Your task to perform on an android device: turn on bluetooth scan Image 0: 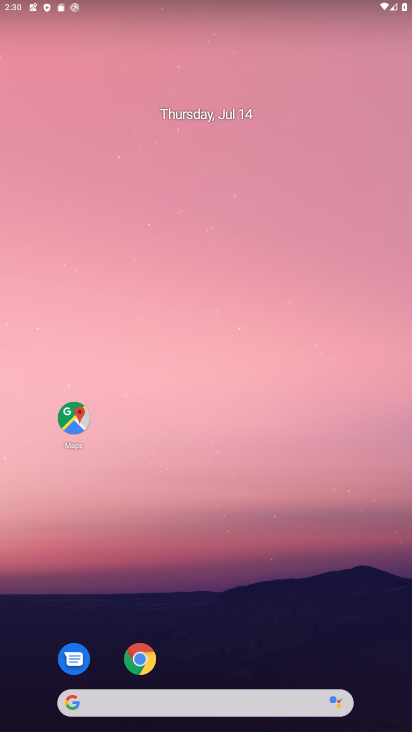
Step 0: drag from (231, 659) to (274, 277)
Your task to perform on an android device: turn on bluetooth scan Image 1: 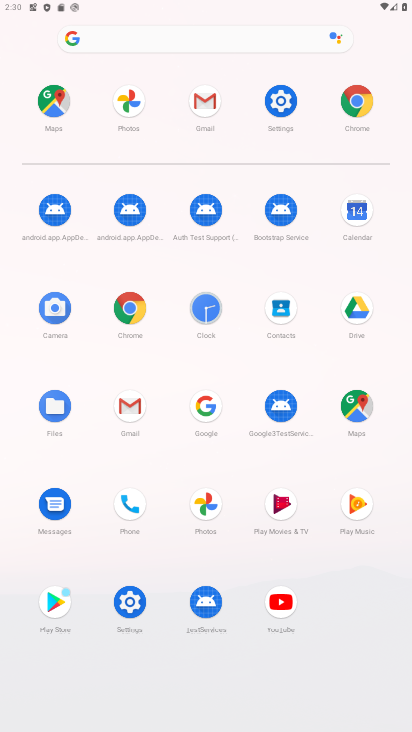
Step 1: click (280, 100)
Your task to perform on an android device: turn on bluetooth scan Image 2: 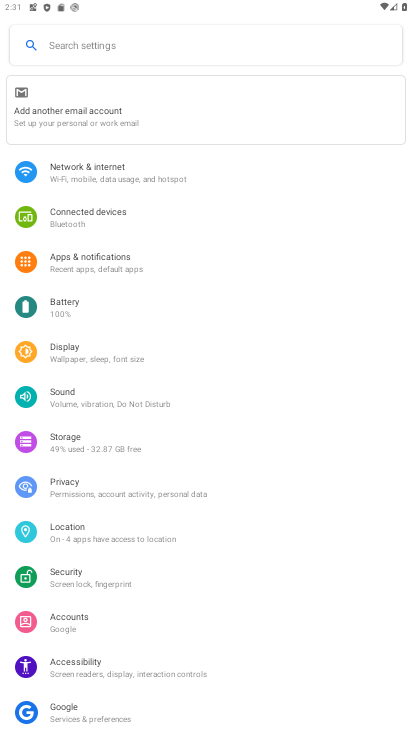
Step 2: click (74, 522)
Your task to perform on an android device: turn on bluetooth scan Image 3: 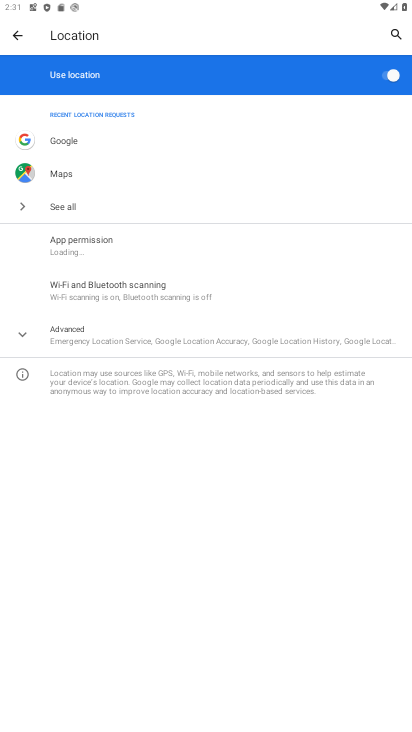
Step 3: click (66, 300)
Your task to perform on an android device: turn on bluetooth scan Image 4: 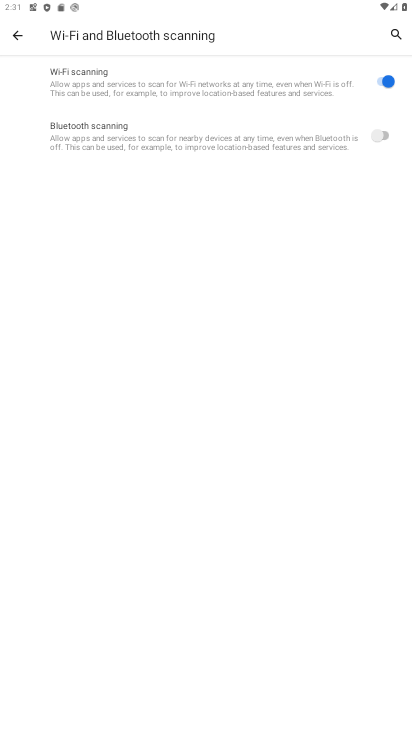
Step 4: click (386, 135)
Your task to perform on an android device: turn on bluetooth scan Image 5: 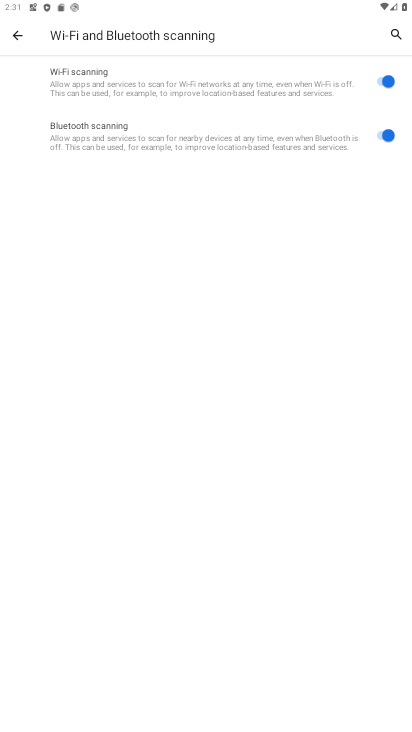
Step 5: task complete